Your task to perform on an android device: Find coffee shops on Maps Image 0: 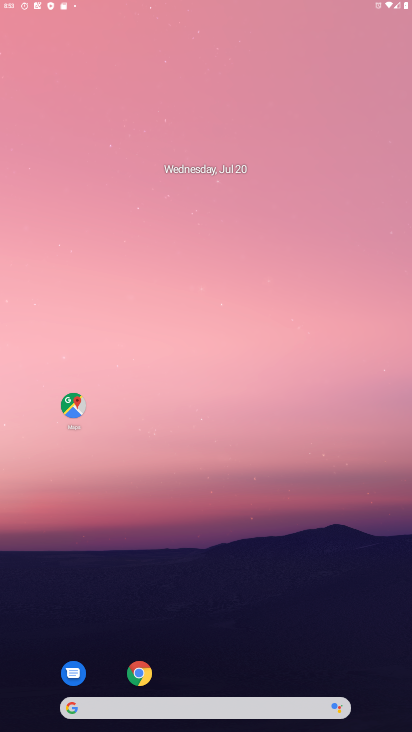
Step 0: click (210, 105)
Your task to perform on an android device: Find coffee shops on Maps Image 1: 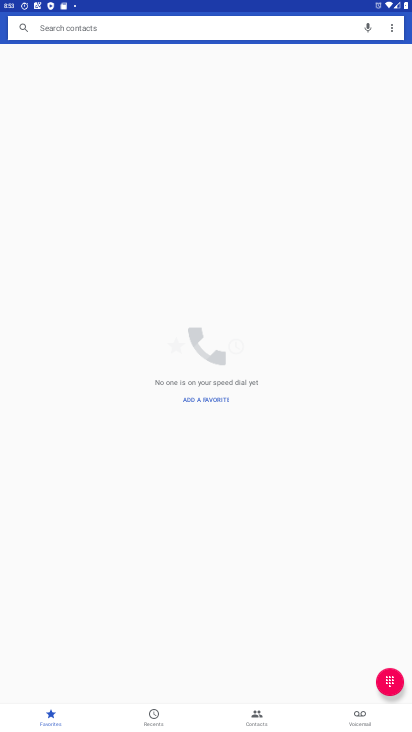
Step 1: press home button
Your task to perform on an android device: Find coffee shops on Maps Image 2: 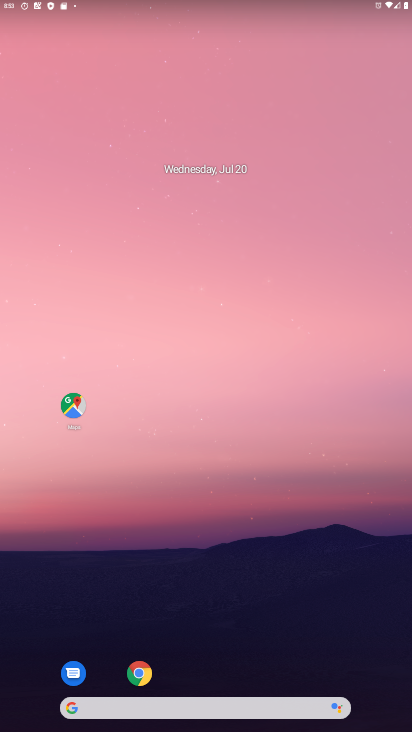
Step 2: click (80, 407)
Your task to perform on an android device: Find coffee shops on Maps Image 3: 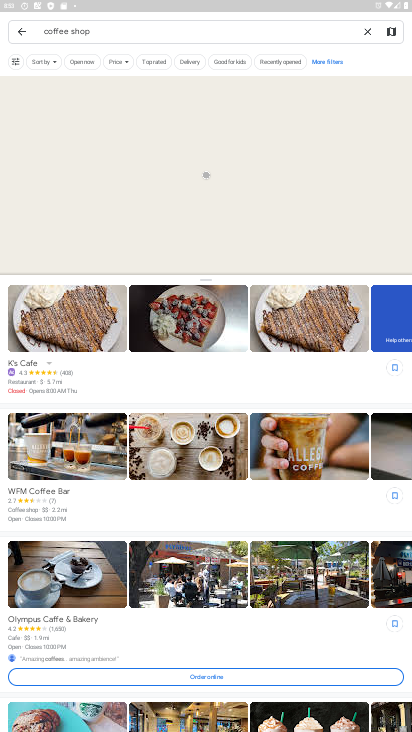
Step 3: task complete